Your task to perform on an android device: find snoozed emails in the gmail app Image 0: 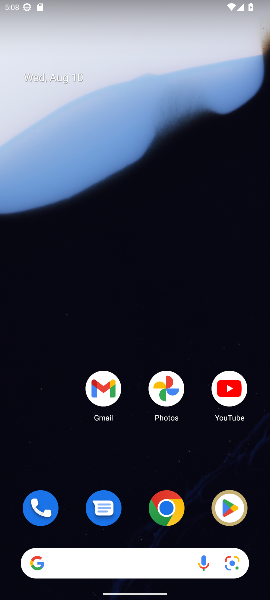
Step 0: press home button
Your task to perform on an android device: find snoozed emails in the gmail app Image 1: 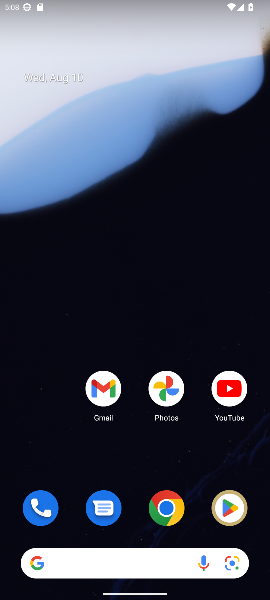
Step 1: click (99, 387)
Your task to perform on an android device: find snoozed emails in the gmail app Image 2: 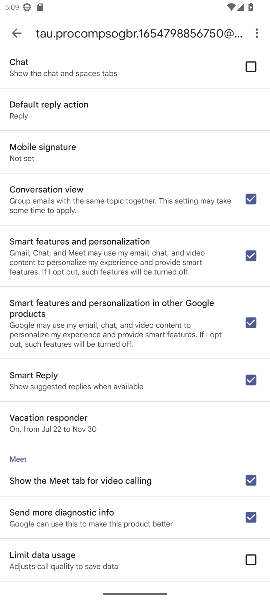
Step 2: press back button
Your task to perform on an android device: find snoozed emails in the gmail app Image 3: 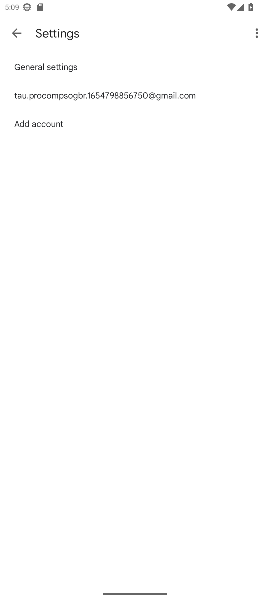
Step 3: press back button
Your task to perform on an android device: find snoozed emails in the gmail app Image 4: 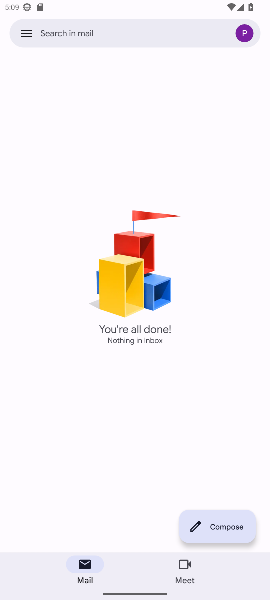
Step 4: click (29, 37)
Your task to perform on an android device: find snoozed emails in the gmail app Image 5: 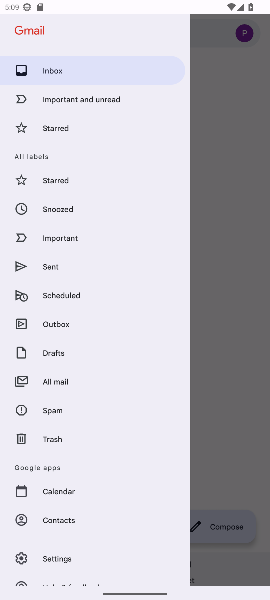
Step 5: click (59, 208)
Your task to perform on an android device: find snoozed emails in the gmail app Image 6: 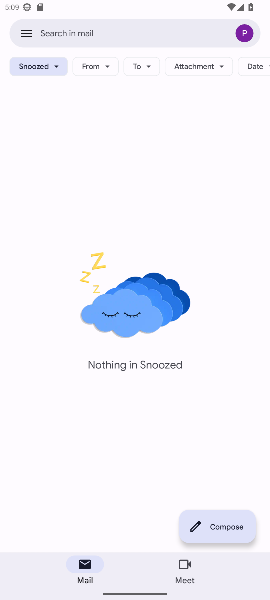
Step 6: task complete